Your task to perform on an android device: toggle notification dots Image 0: 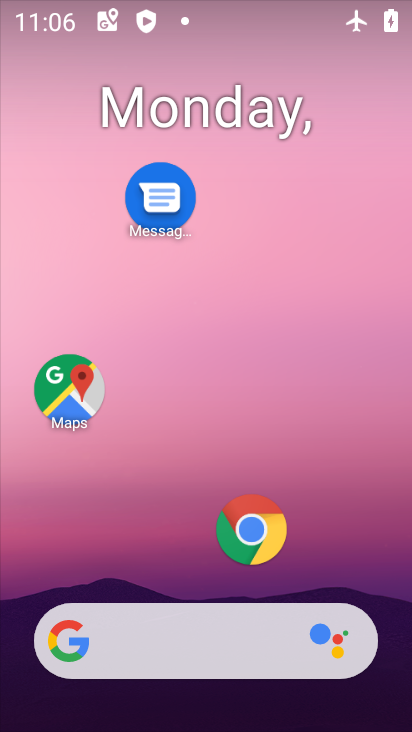
Step 0: drag from (187, 534) to (302, 100)
Your task to perform on an android device: toggle notification dots Image 1: 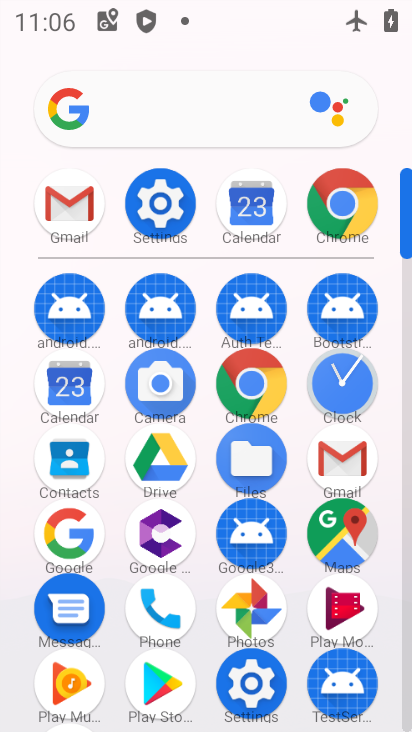
Step 1: click (170, 215)
Your task to perform on an android device: toggle notification dots Image 2: 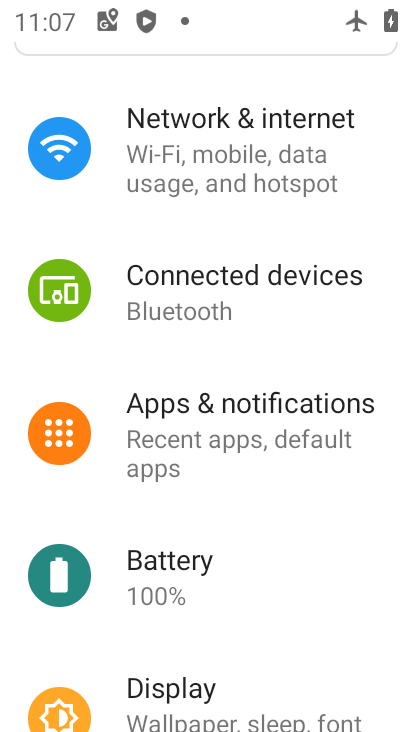
Step 2: click (256, 428)
Your task to perform on an android device: toggle notification dots Image 3: 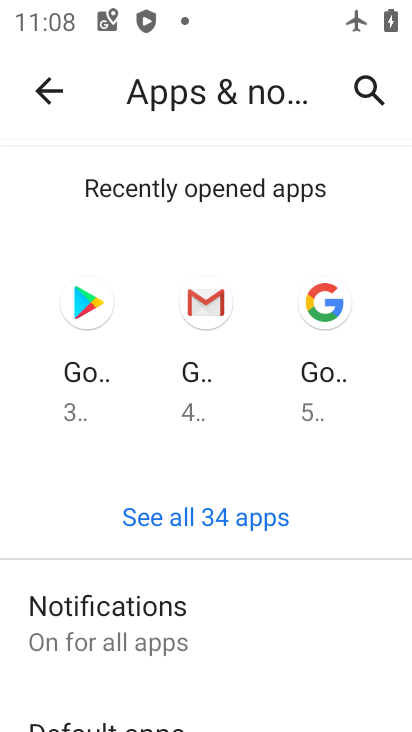
Step 3: drag from (156, 623) to (211, 333)
Your task to perform on an android device: toggle notification dots Image 4: 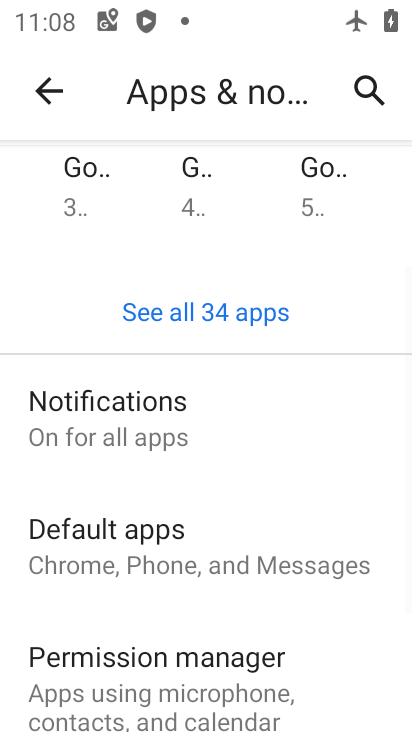
Step 4: click (159, 456)
Your task to perform on an android device: toggle notification dots Image 5: 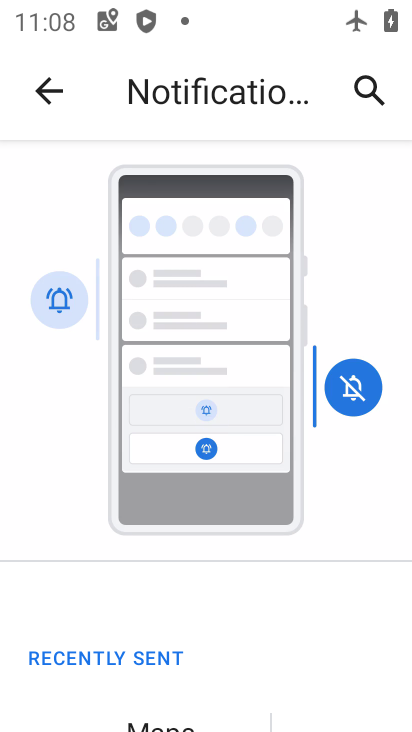
Step 5: drag from (146, 630) to (314, 107)
Your task to perform on an android device: toggle notification dots Image 6: 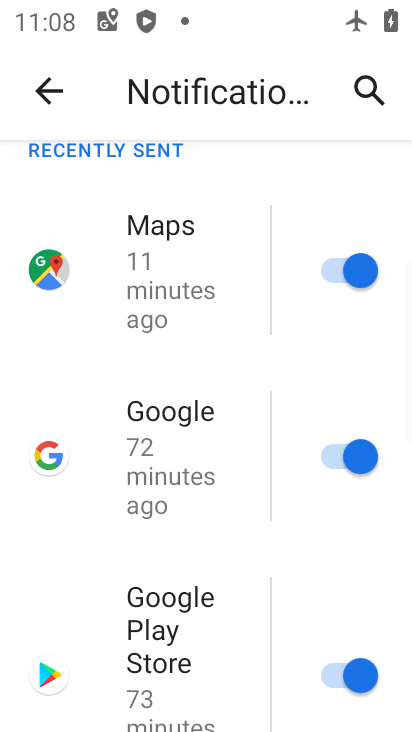
Step 6: drag from (221, 602) to (287, 121)
Your task to perform on an android device: toggle notification dots Image 7: 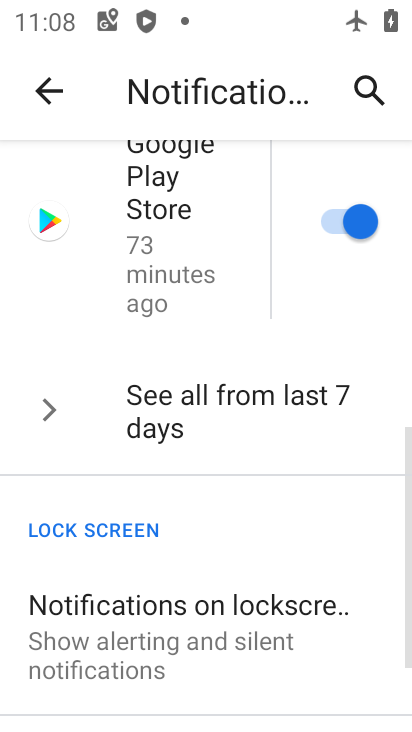
Step 7: drag from (204, 637) to (254, 262)
Your task to perform on an android device: toggle notification dots Image 8: 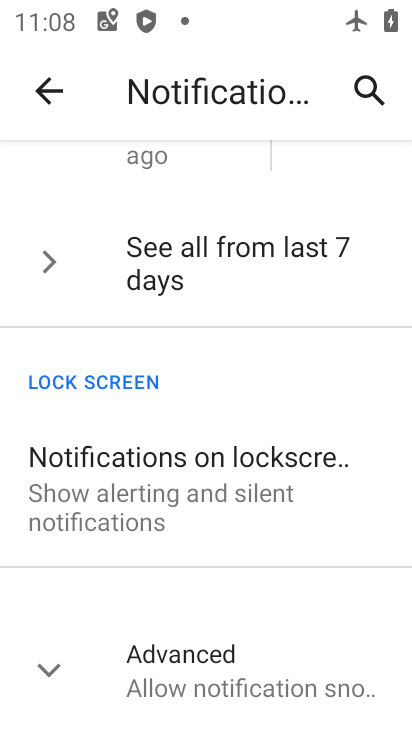
Step 8: click (209, 675)
Your task to perform on an android device: toggle notification dots Image 9: 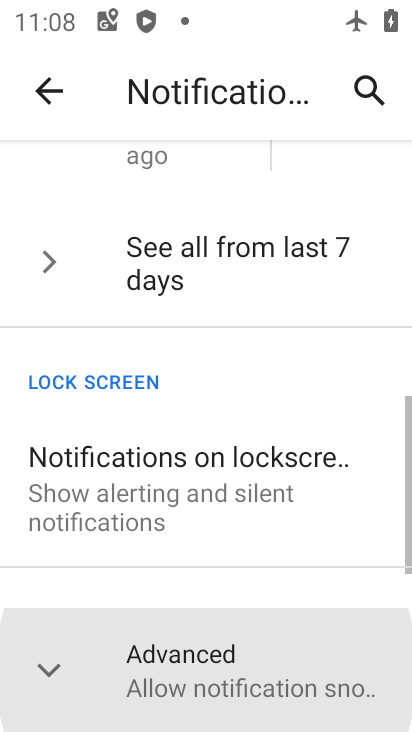
Step 9: drag from (201, 630) to (256, 142)
Your task to perform on an android device: toggle notification dots Image 10: 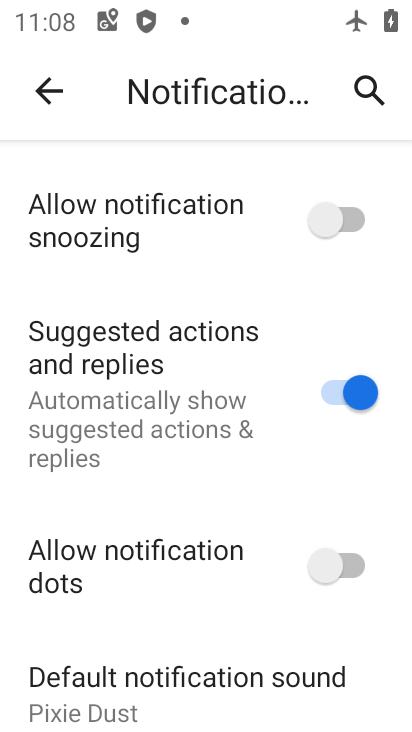
Step 10: click (323, 565)
Your task to perform on an android device: toggle notification dots Image 11: 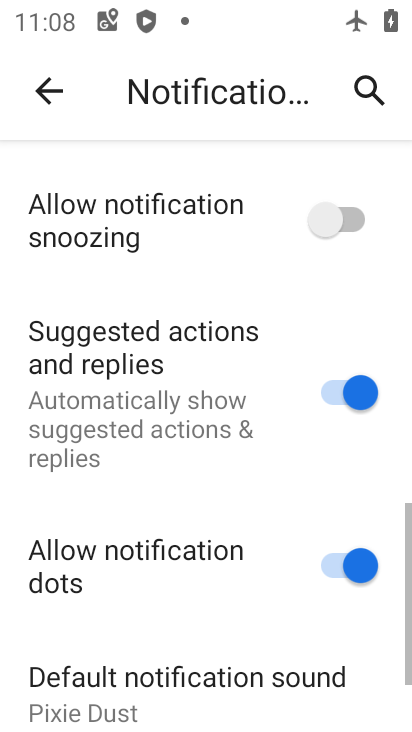
Step 11: task complete